Your task to perform on an android device: Open Yahoo.com Image 0: 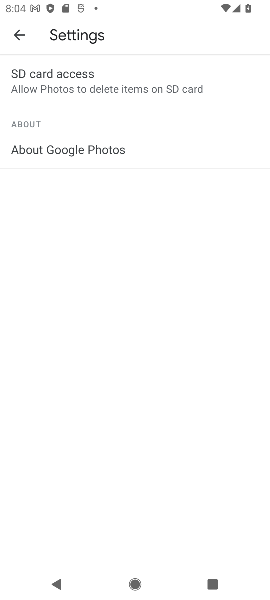
Step 0: press home button
Your task to perform on an android device: Open Yahoo.com Image 1: 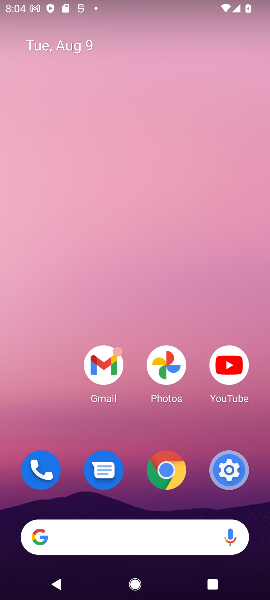
Step 1: click (164, 463)
Your task to perform on an android device: Open Yahoo.com Image 2: 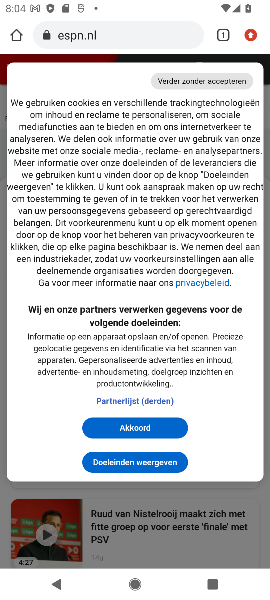
Step 2: click (94, 34)
Your task to perform on an android device: Open Yahoo.com Image 3: 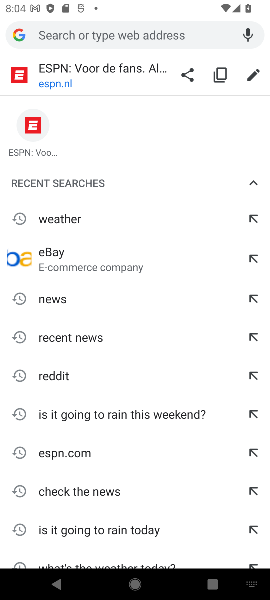
Step 3: type "Yahoo.com"
Your task to perform on an android device: Open Yahoo.com Image 4: 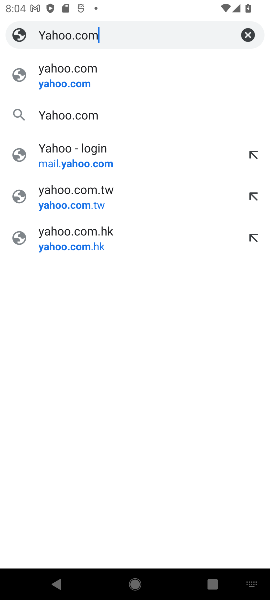
Step 4: click (77, 81)
Your task to perform on an android device: Open Yahoo.com Image 5: 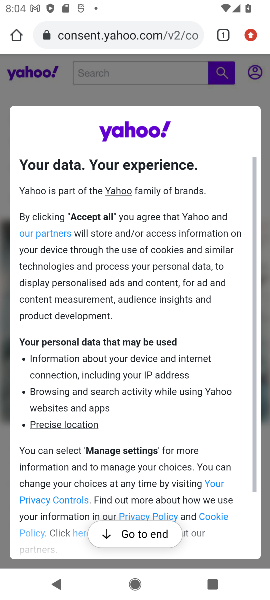
Step 5: task complete